Your task to perform on an android device: turn notification dots off Image 0: 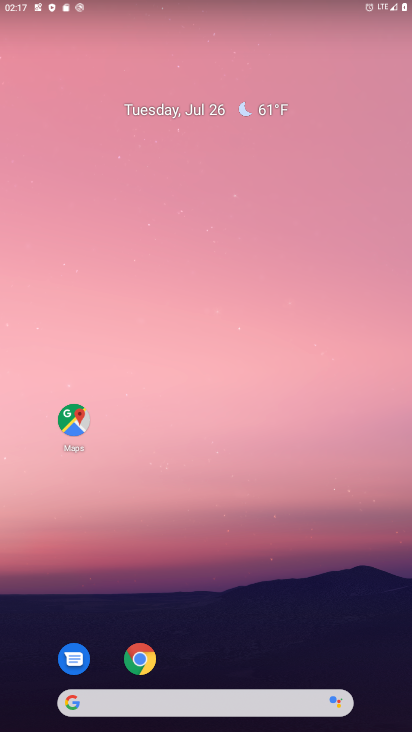
Step 0: drag from (307, 653) to (289, 140)
Your task to perform on an android device: turn notification dots off Image 1: 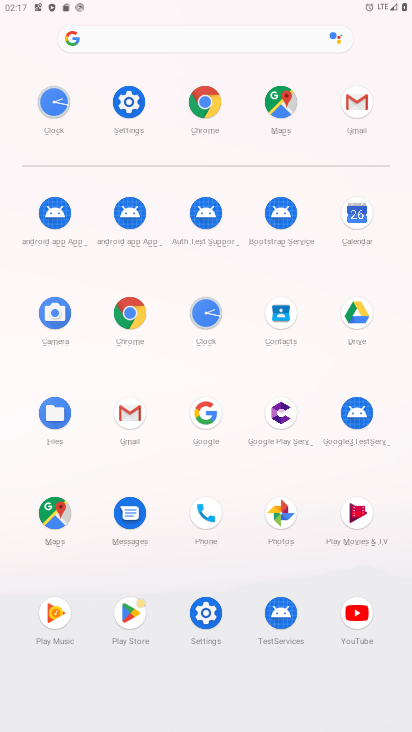
Step 1: click (123, 109)
Your task to perform on an android device: turn notification dots off Image 2: 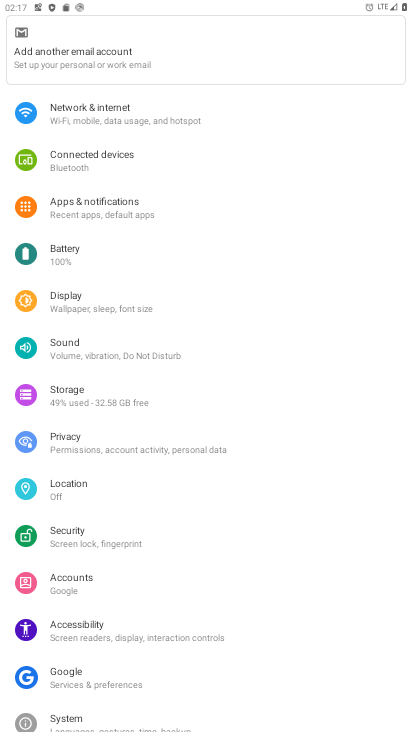
Step 2: click (106, 217)
Your task to perform on an android device: turn notification dots off Image 3: 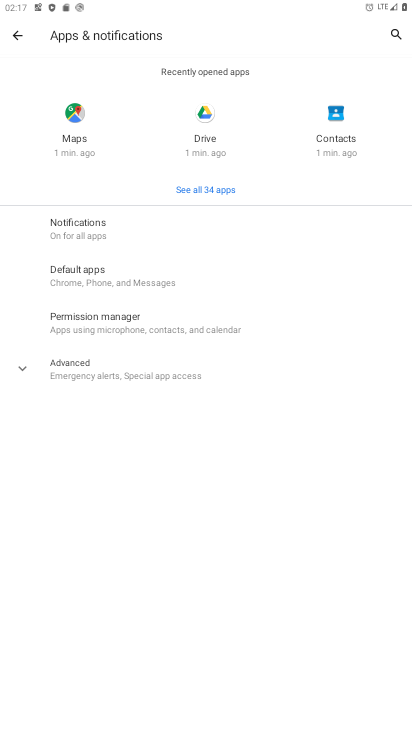
Step 3: click (87, 237)
Your task to perform on an android device: turn notification dots off Image 4: 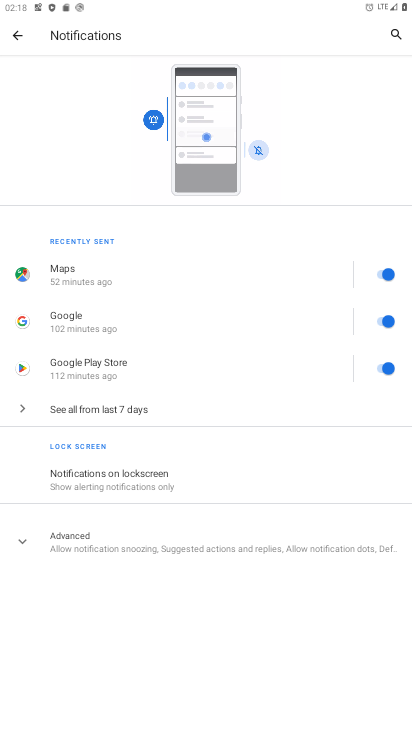
Step 4: click (84, 546)
Your task to perform on an android device: turn notification dots off Image 5: 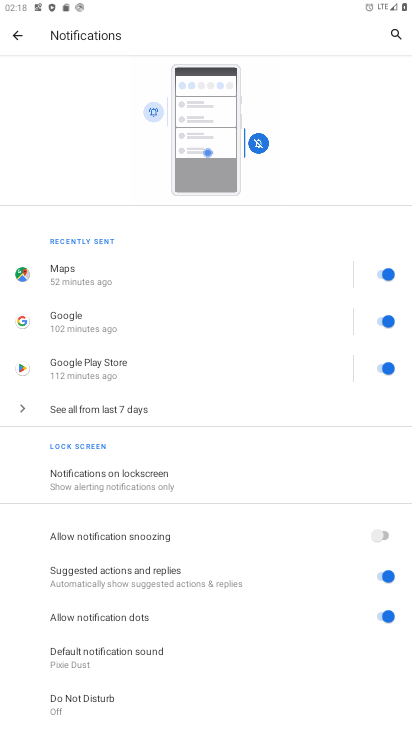
Step 5: click (387, 613)
Your task to perform on an android device: turn notification dots off Image 6: 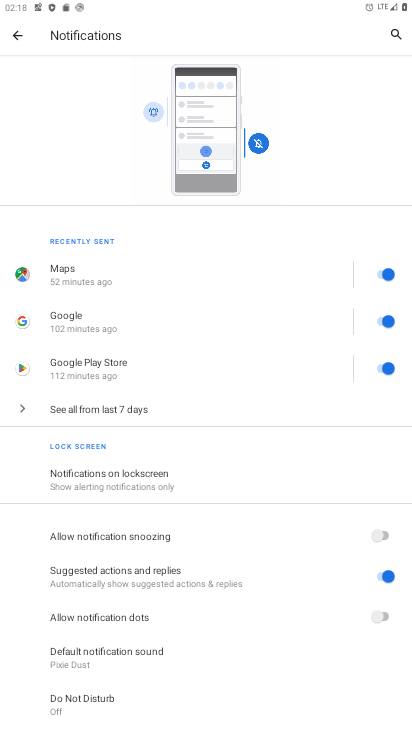
Step 6: task complete